Your task to perform on an android device: Open accessibility settings Image 0: 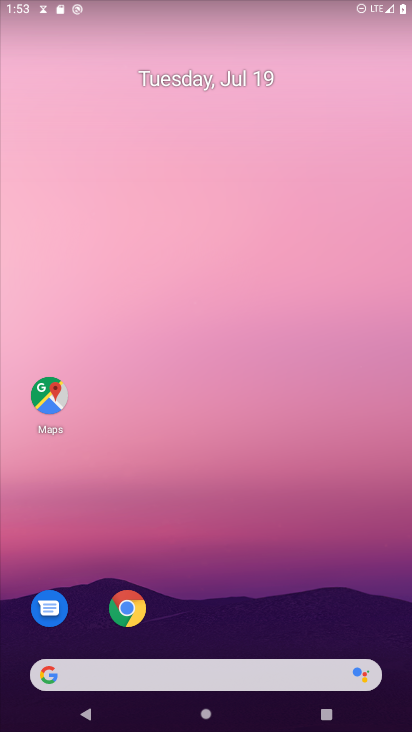
Step 0: drag from (207, 649) to (360, 10)
Your task to perform on an android device: Open accessibility settings Image 1: 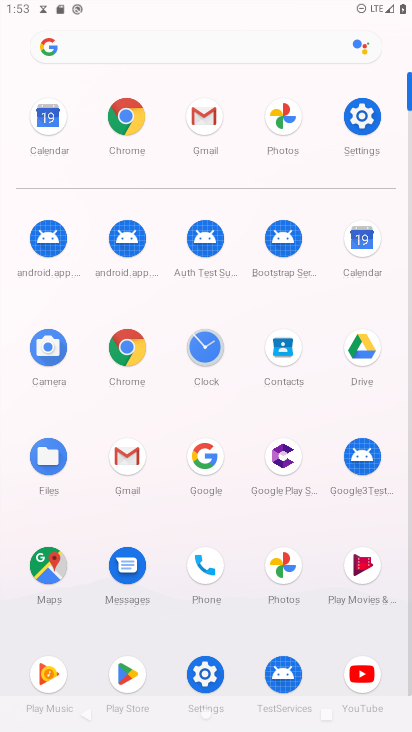
Step 1: click (364, 123)
Your task to perform on an android device: Open accessibility settings Image 2: 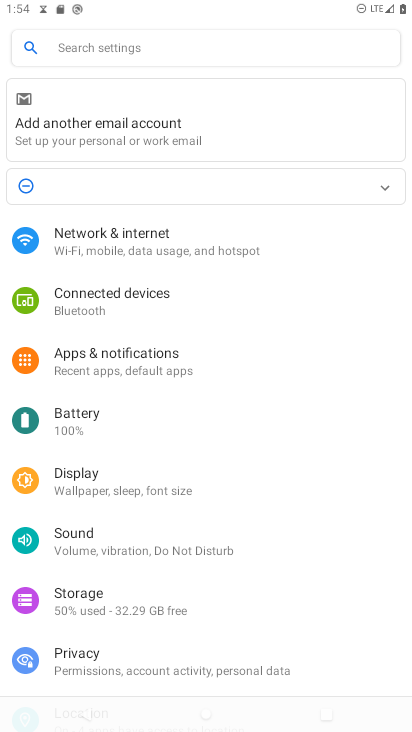
Step 2: drag from (226, 664) to (196, 135)
Your task to perform on an android device: Open accessibility settings Image 3: 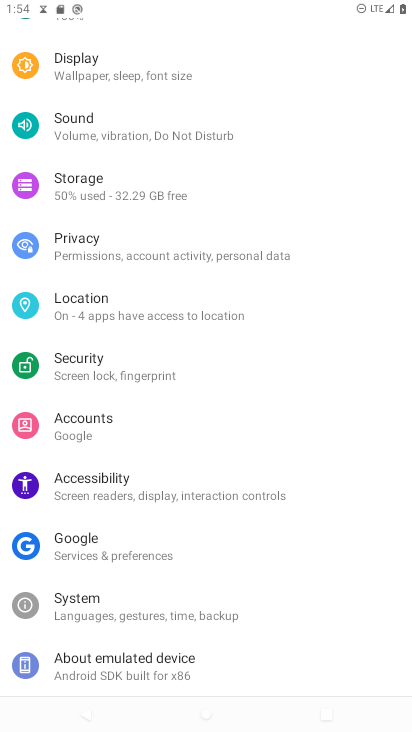
Step 3: click (167, 492)
Your task to perform on an android device: Open accessibility settings Image 4: 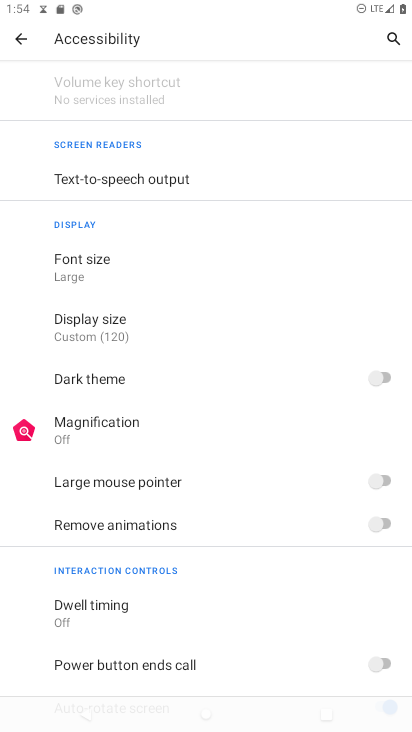
Step 4: task complete